Your task to perform on an android device: Add logitech g910 to the cart on newegg.com Image 0: 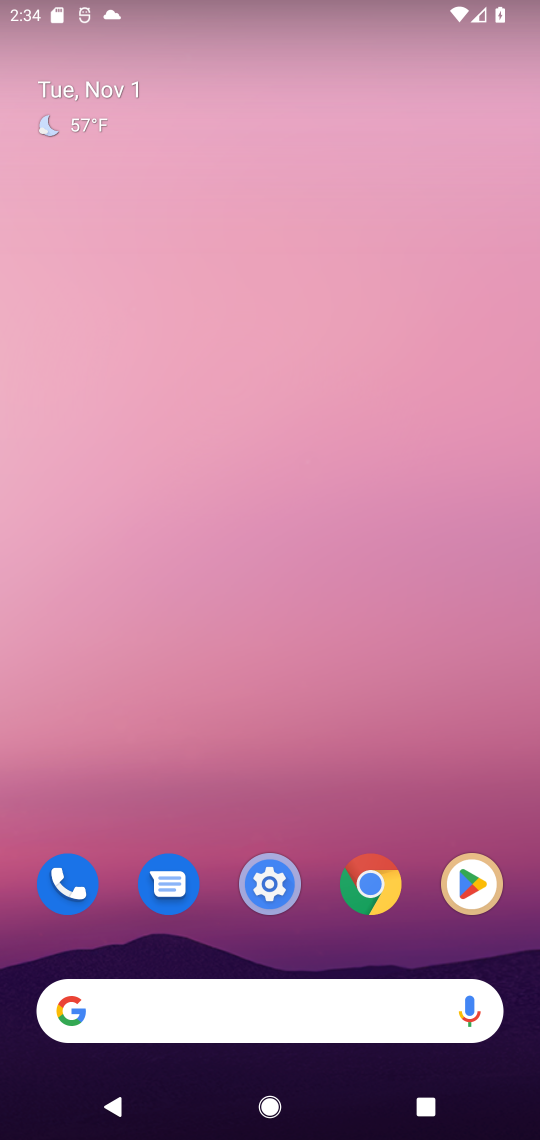
Step 0: press home button
Your task to perform on an android device: Add logitech g910 to the cart on newegg.com Image 1: 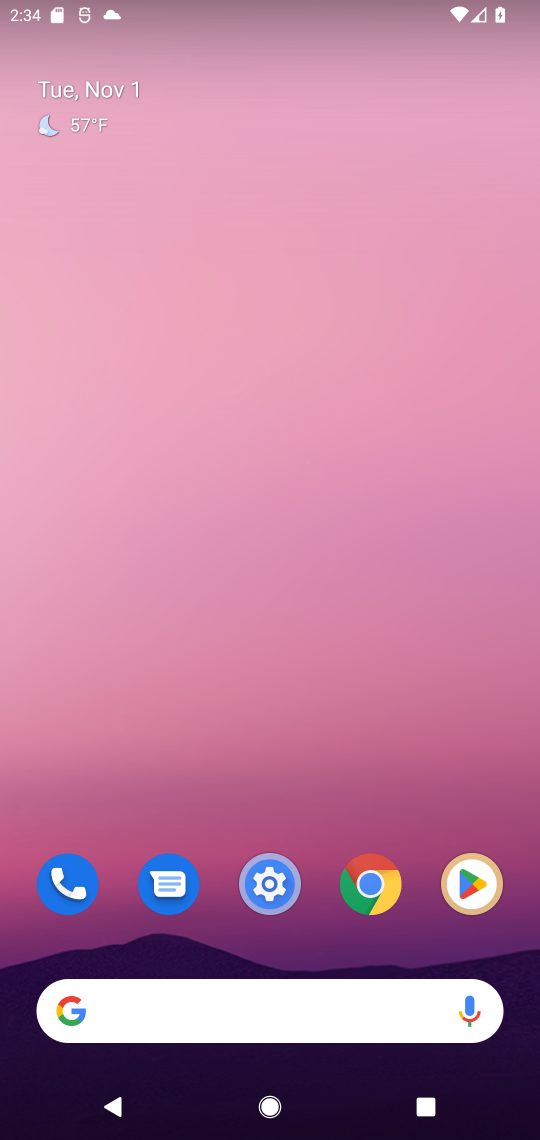
Step 1: click (98, 1007)
Your task to perform on an android device: Add logitech g910 to the cart on newegg.com Image 2: 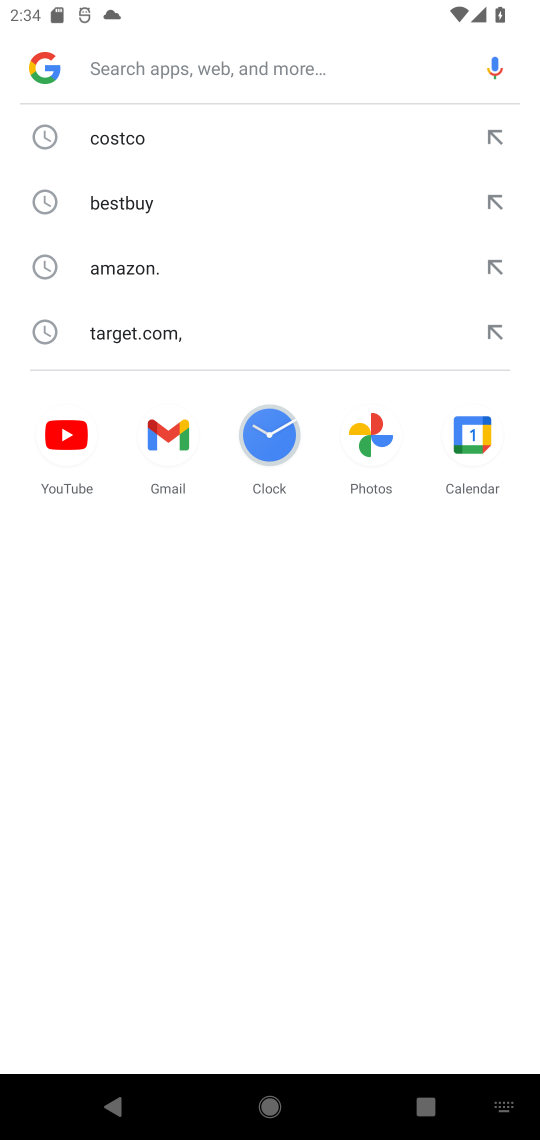
Step 2: type "newegg.com"
Your task to perform on an android device: Add logitech g910 to the cart on newegg.com Image 3: 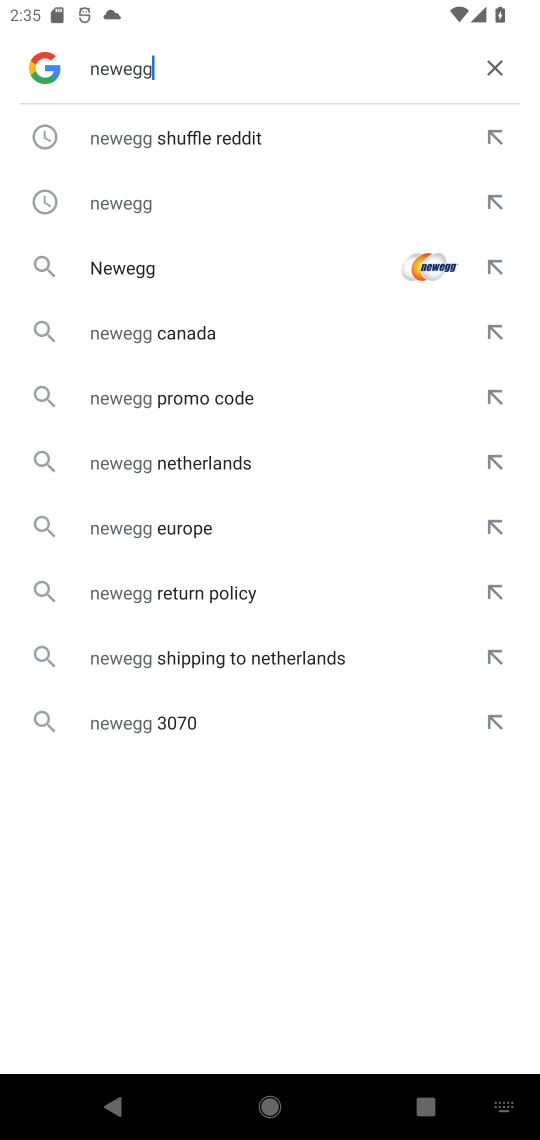
Step 3: press enter
Your task to perform on an android device: Add logitech g910 to the cart on newegg.com Image 4: 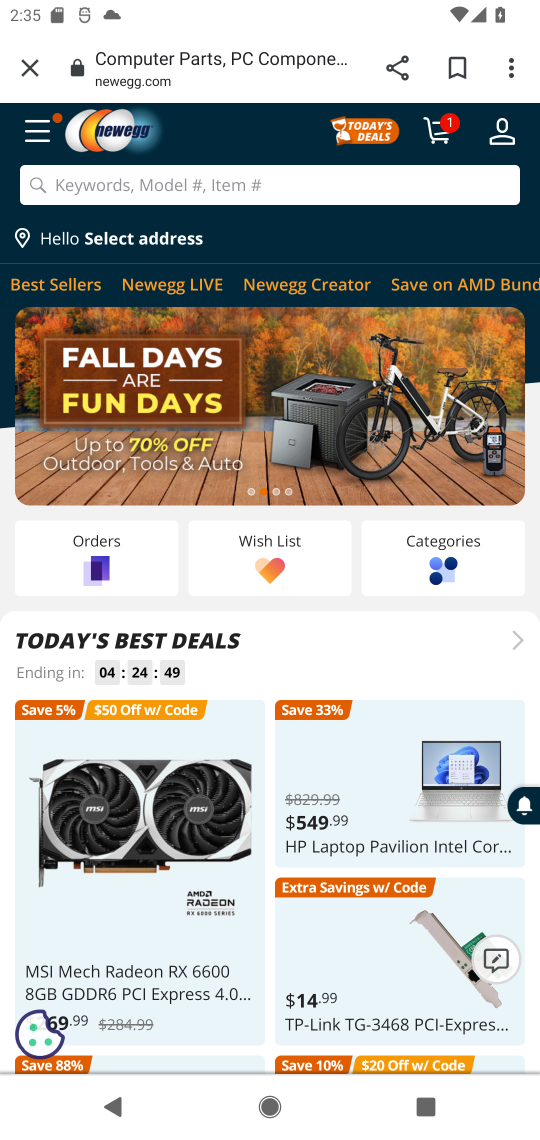
Step 4: click (52, 182)
Your task to perform on an android device: Add logitech g910 to the cart on newegg.com Image 5: 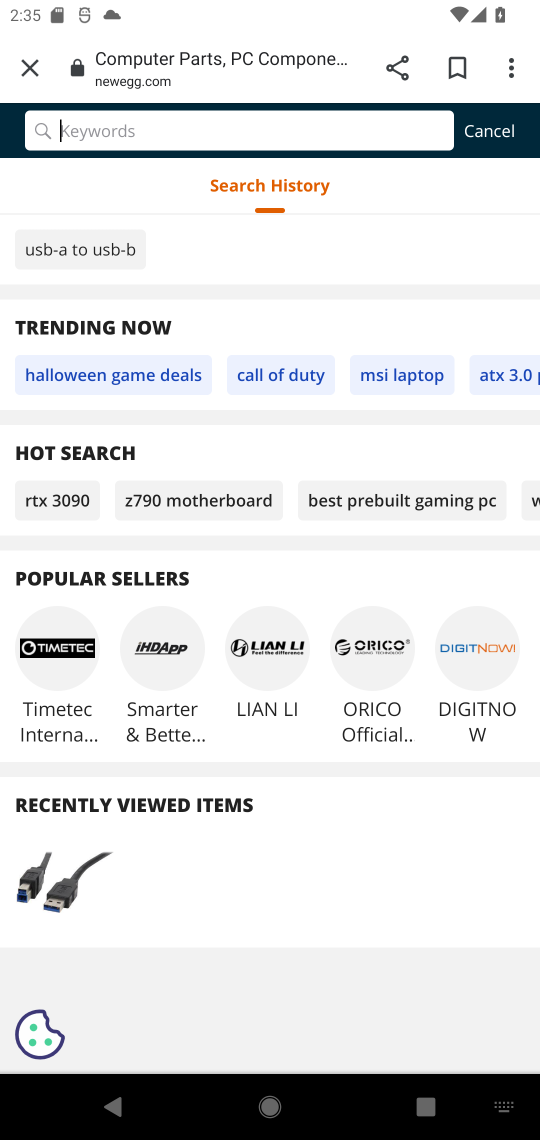
Step 5: type "logitech g910"
Your task to perform on an android device: Add logitech g910 to the cart on newegg.com Image 6: 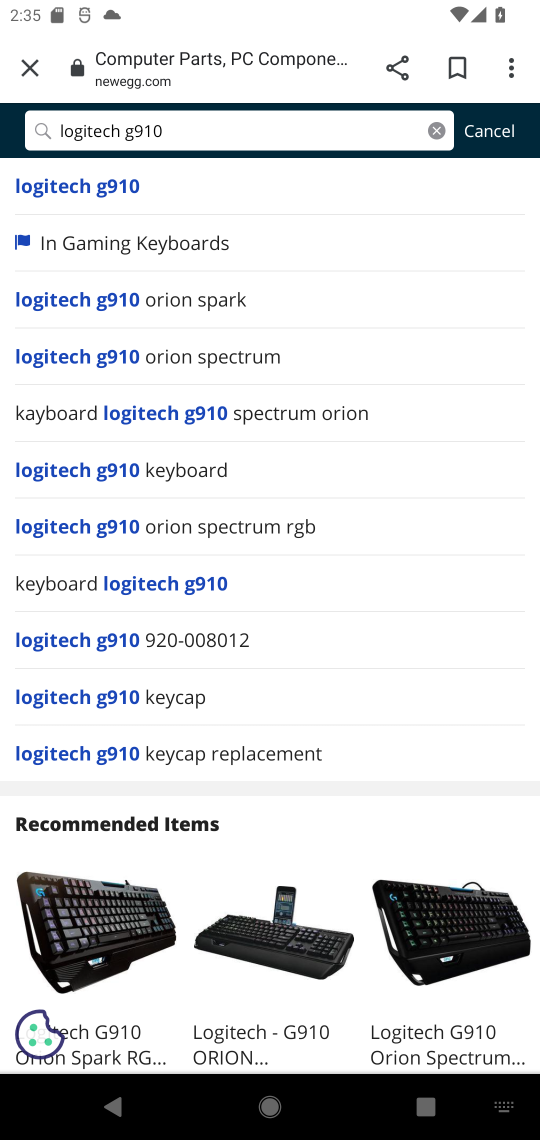
Step 6: click (105, 186)
Your task to perform on an android device: Add logitech g910 to the cart on newegg.com Image 7: 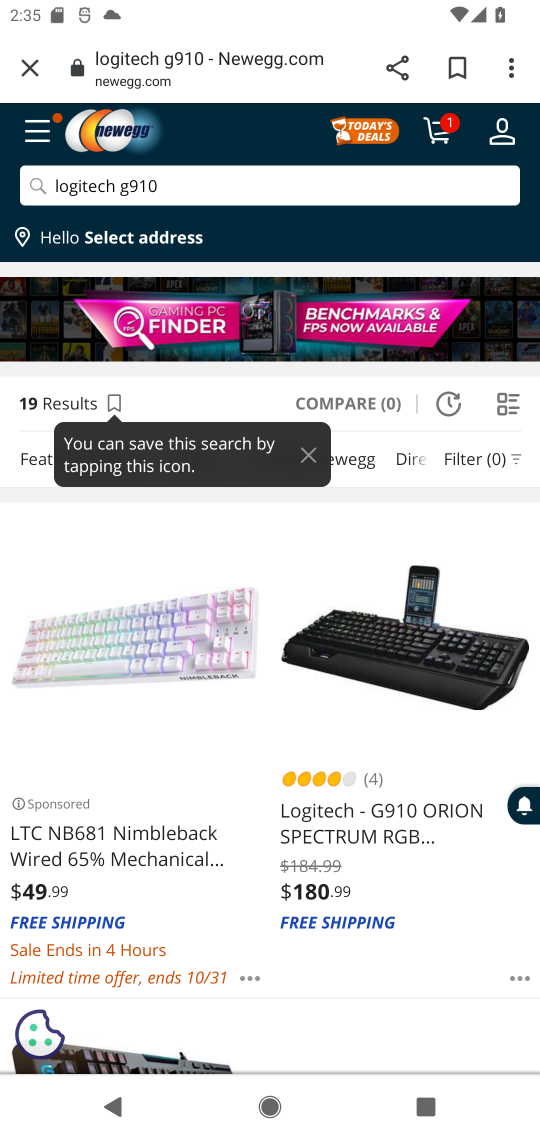
Step 7: click (409, 826)
Your task to perform on an android device: Add logitech g910 to the cart on newegg.com Image 8: 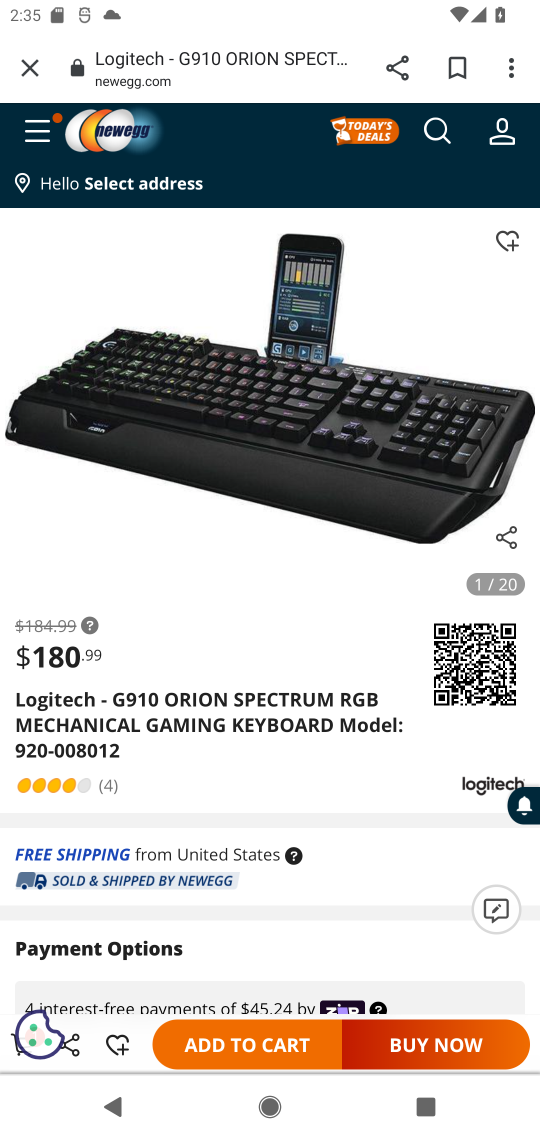
Step 8: click (209, 1052)
Your task to perform on an android device: Add logitech g910 to the cart on newegg.com Image 9: 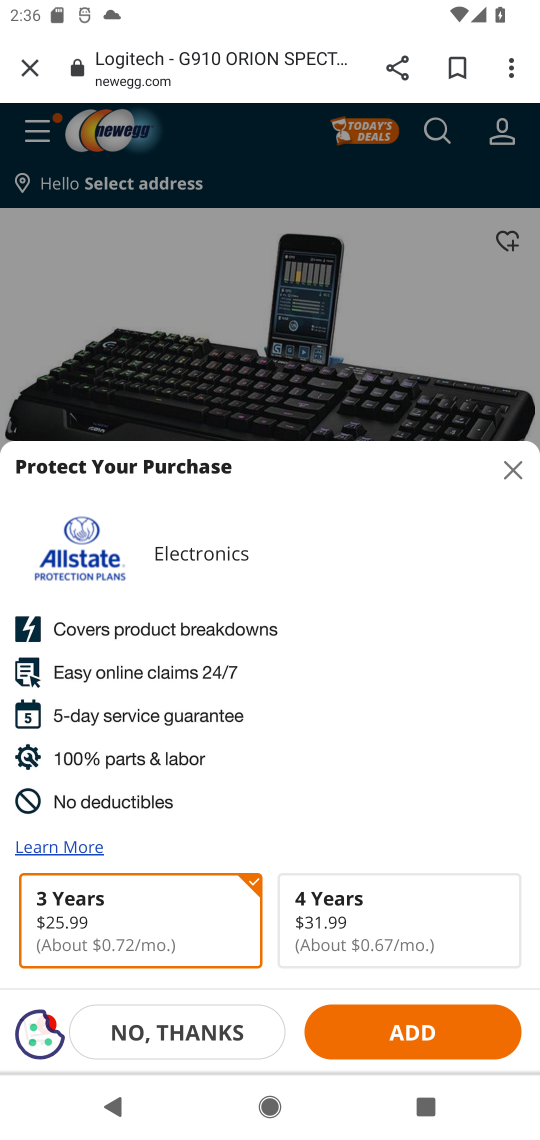
Step 9: click (386, 1033)
Your task to perform on an android device: Add logitech g910 to the cart on newegg.com Image 10: 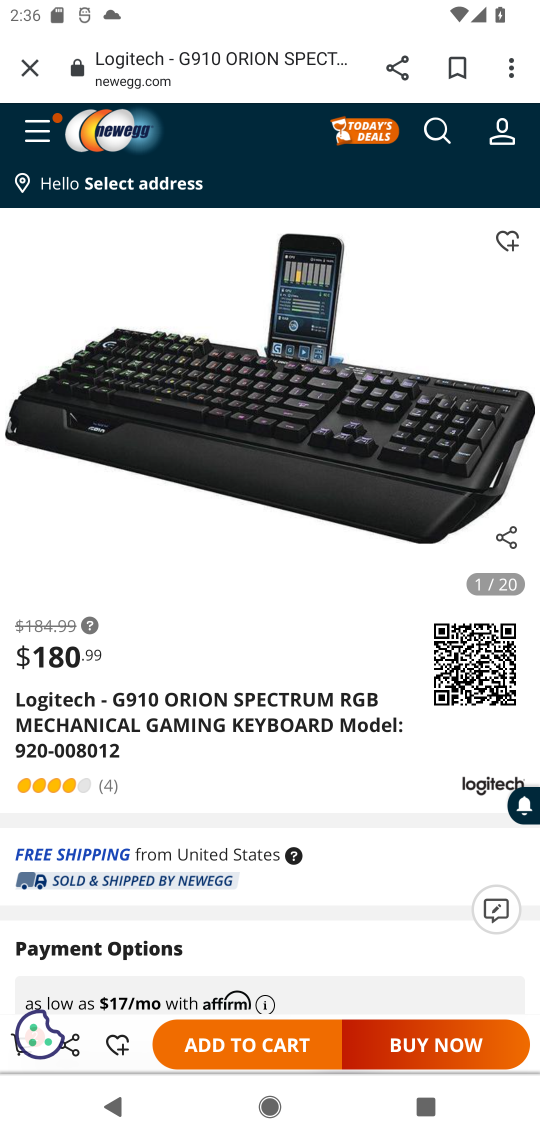
Step 10: task complete